Your task to perform on an android device: Open calendar and show me the first week of next month Image 0: 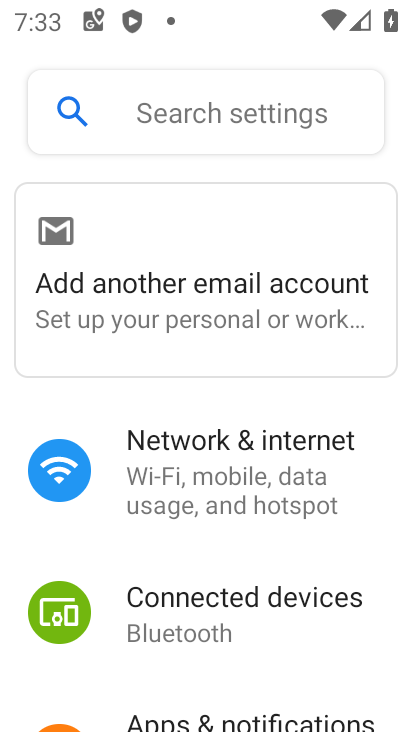
Step 0: press home button
Your task to perform on an android device: Open calendar and show me the first week of next month Image 1: 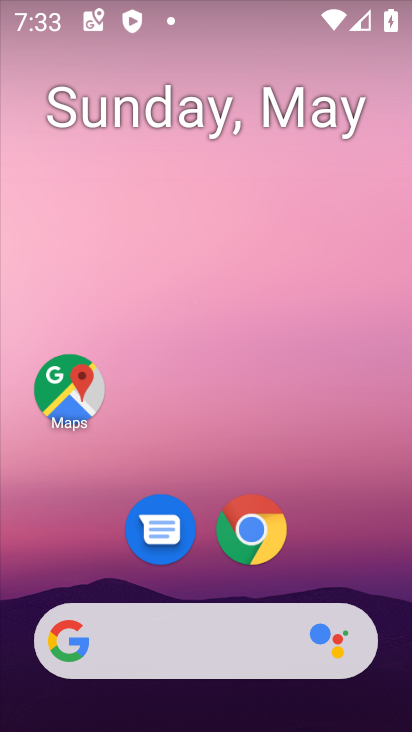
Step 1: drag from (368, 596) to (377, 7)
Your task to perform on an android device: Open calendar and show me the first week of next month Image 2: 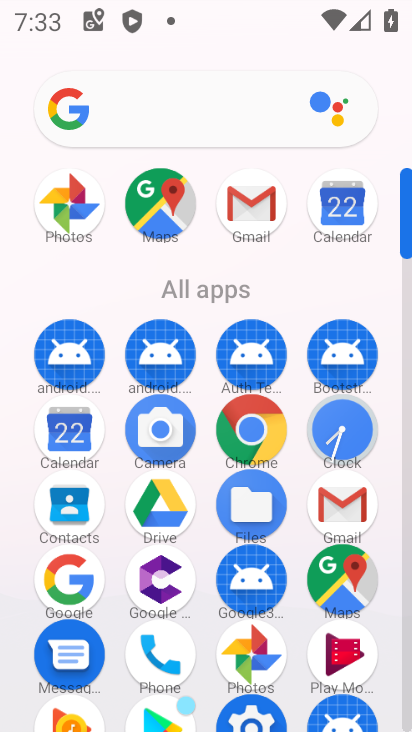
Step 2: click (338, 208)
Your task to perform on an android device: Open calendar and show me the first week of next month Image 3: 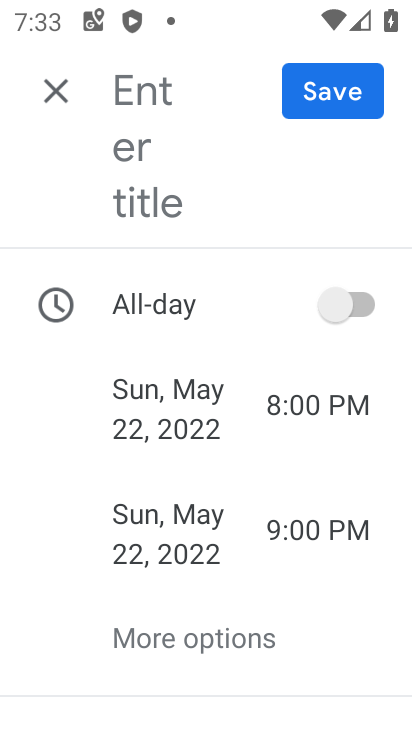
Step 3: click (55, 94)
Your task to perform on an android device: Open calendar and show me the first week of next month Image 4: 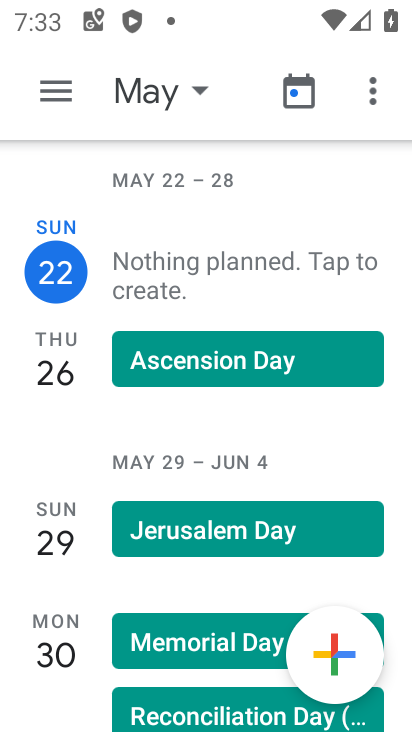
Step 4: click (201, 92)
Your task to perform on an android device: Open calendar and show me the first week of next month Image 5: 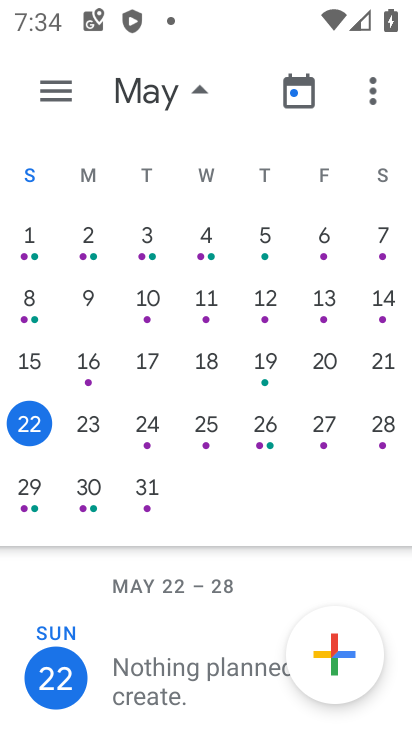
Step 5: drag from (310, 342) to (12, 365)
Your task to perform on an android device: Open calendar and show me the first week of next month Image 6: 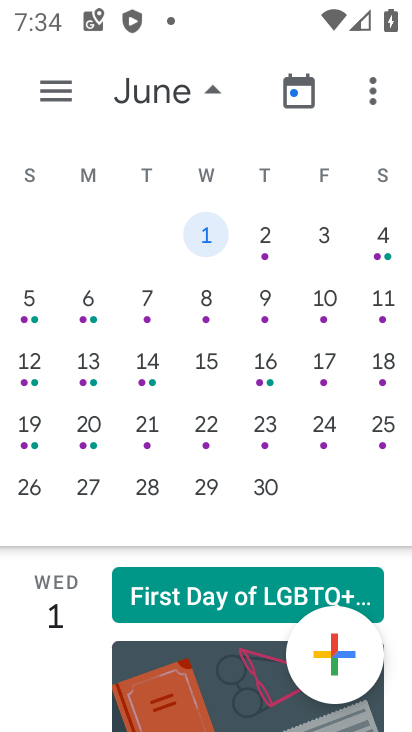
Step 6: click (62, 87)
Your task to perform on an android device: Open calendar and show me the first week of next month Image 7: 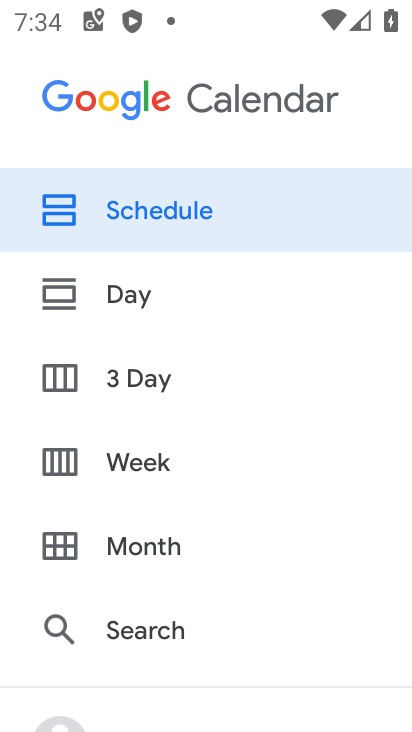
Step 7: click (119, 455)
Your task to perform on an android device: Open calendar and show me the first week of next month Image 8: 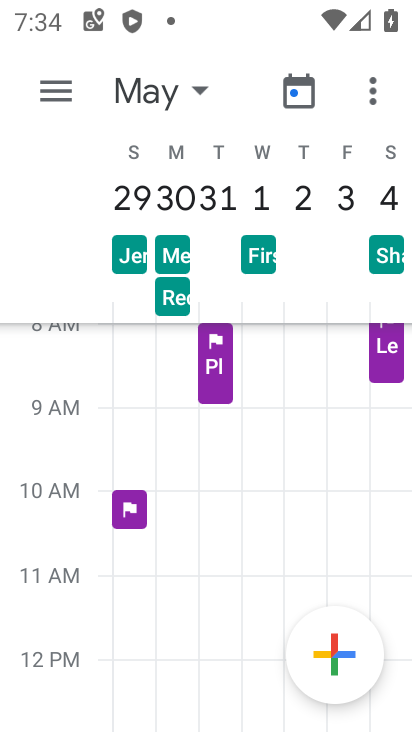
Step 8: task complete